Your task to perform on an android device: find which apps use the phone's location Image 0: 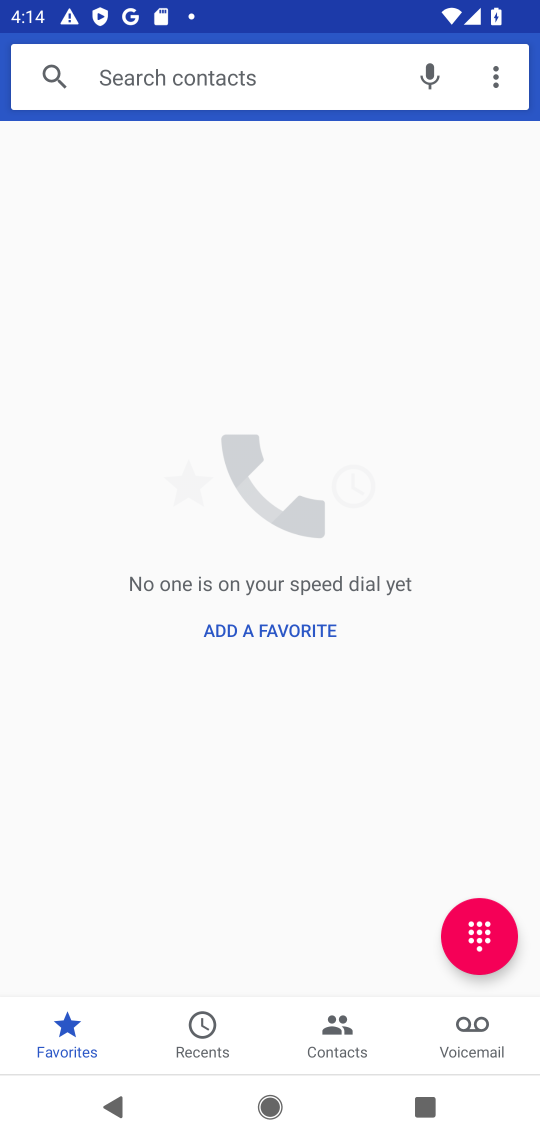
Step 0: press back button
Your task to perform on an android device: find which apps use the phone's location Image 1: 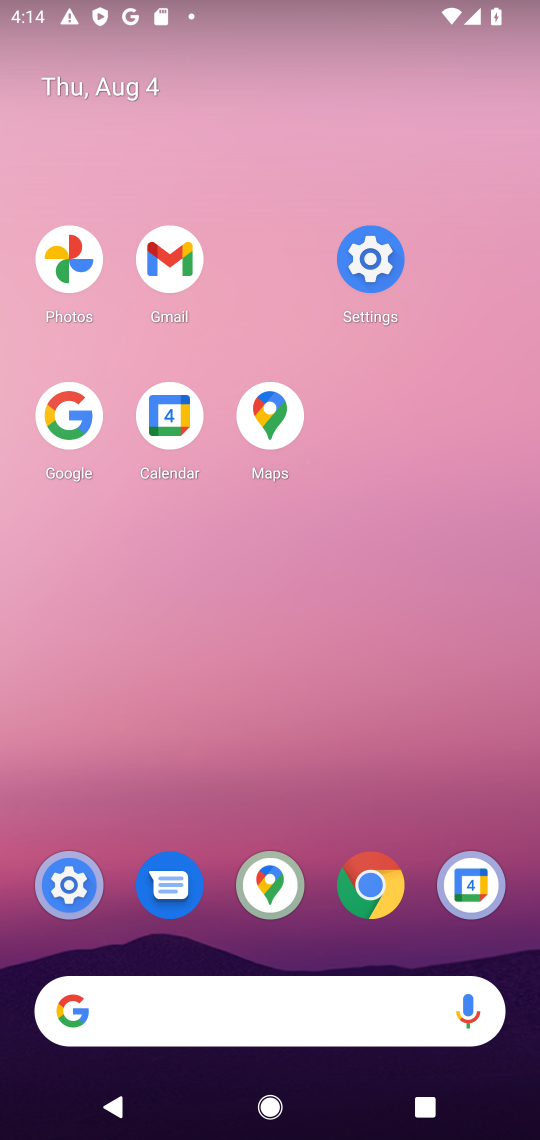
Step 1: click (368, 258)
Your task to perform on an android device: find which apps use the phone's location Image 2: 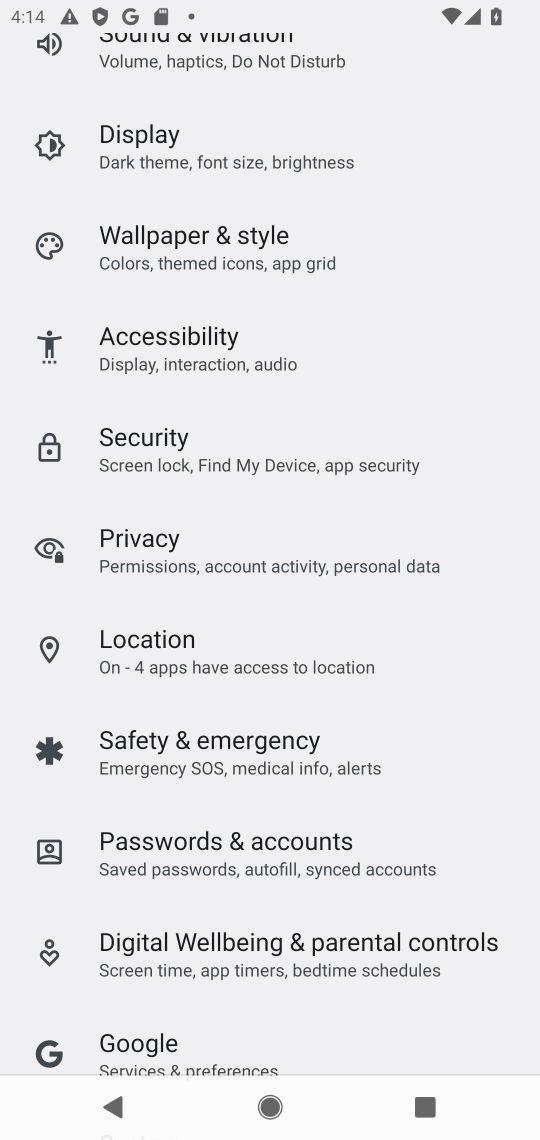
Step 2: click (297, 645)
Your task to perform on an android device: find which apps use the phone's location Image 3: 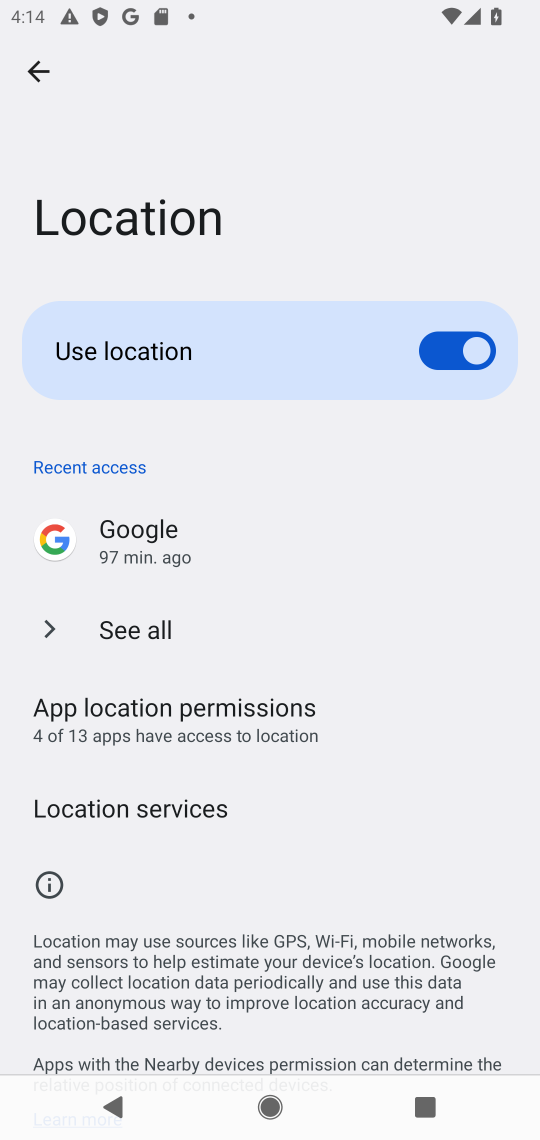
Step 3: task complete